Your task to perform on an android device: set the stopwatch Image 0: 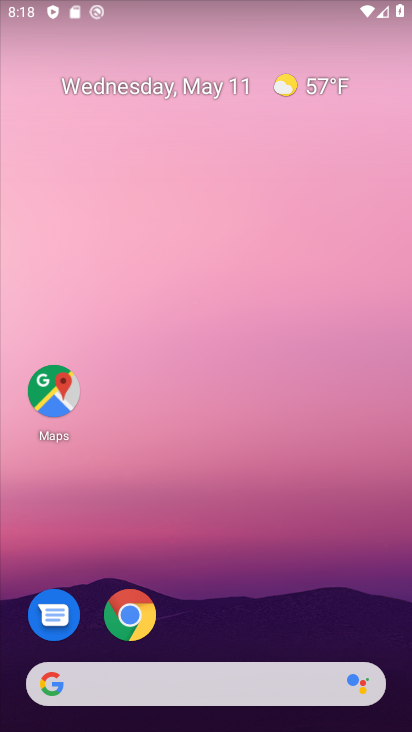
Step 0: drag from (297, 561) to (333, 59)
Your task to perform on an android device: set the stopwatch Image 1: 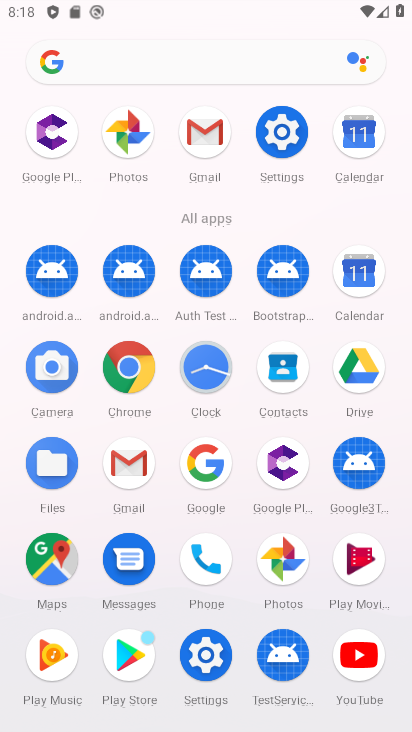
Step 1: click (210, 386)
Your task to perform on an android device: set the stopwatch Image 2: 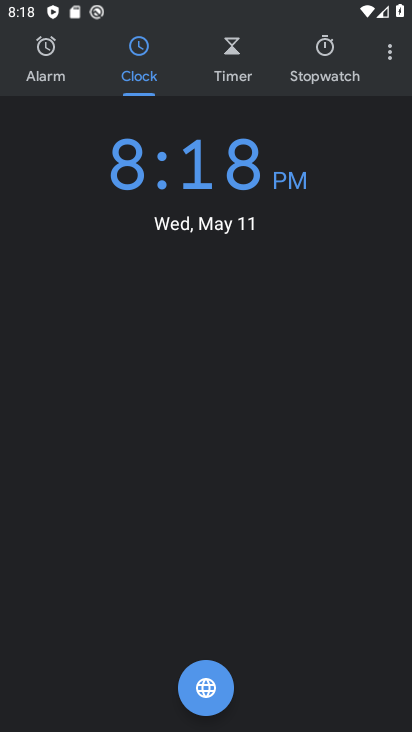
Step 2: click (329, 68)
Your task to perform on an android device: set the stopwatch Image 3: 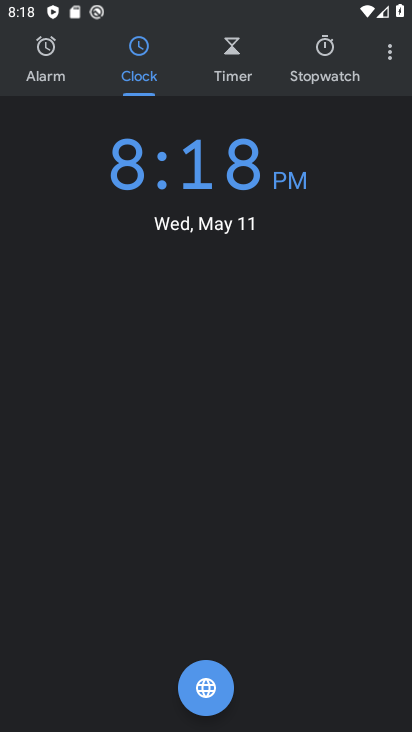
Step 3: click (342, 88)
Your task to perform on an android device: set the stopwatch Image 4: 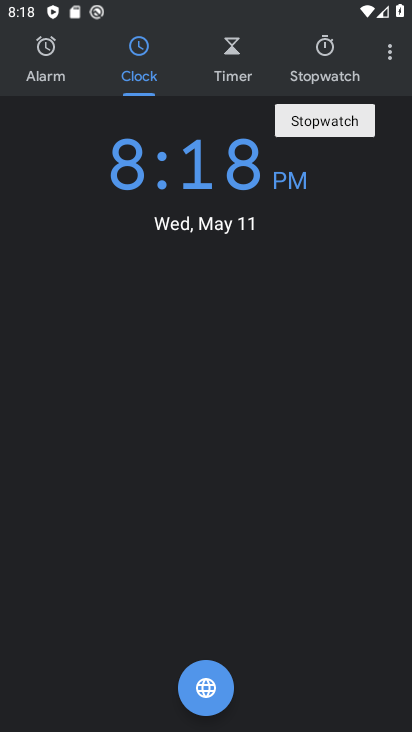
Step 4: click (335, 79)
Your task to perform on an android device: set the stopwatch Image 5: 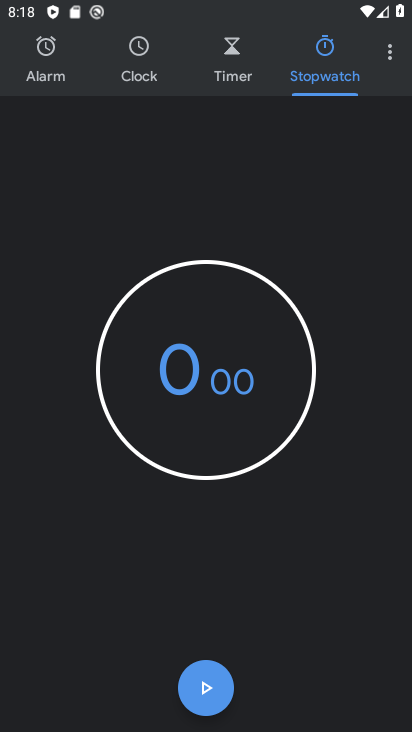
Step 5: click (205, 689)
Your task to perform on an android device: set the stopwatch Image 6: 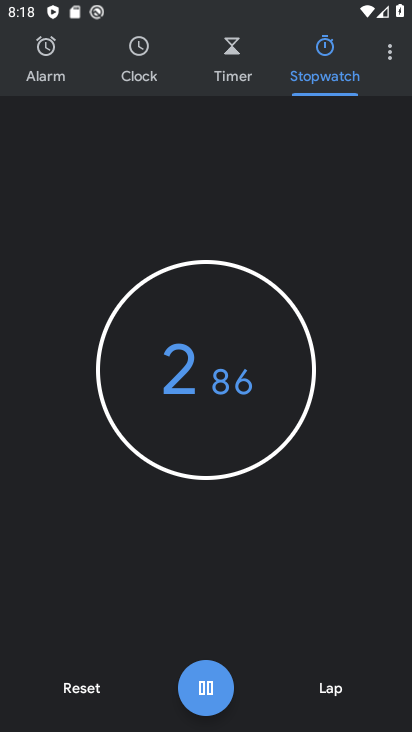
Step 6: task complete